Your task to perform on an android device: turn off picture-in-picture Image 0: 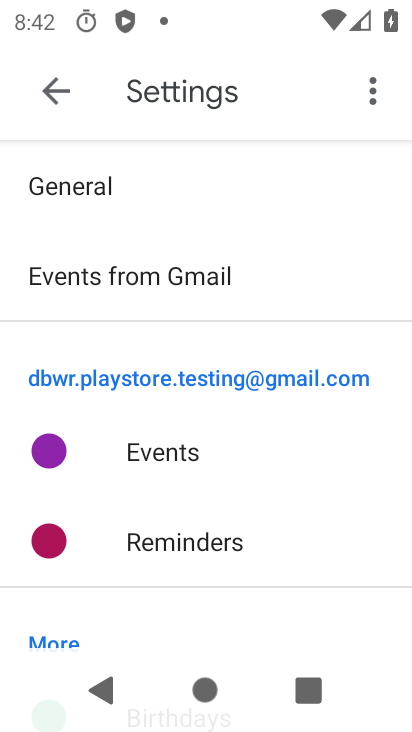
Step 0: press home button
Your task to perform on an android device: turn off picture-in-picture Image 1: 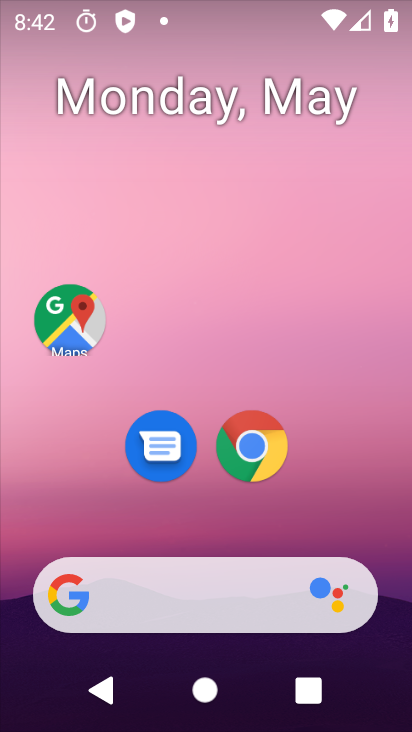
Step 1: click (248, 450)
Your task to perform on an android device: turn off picture-in-picture Image 2: 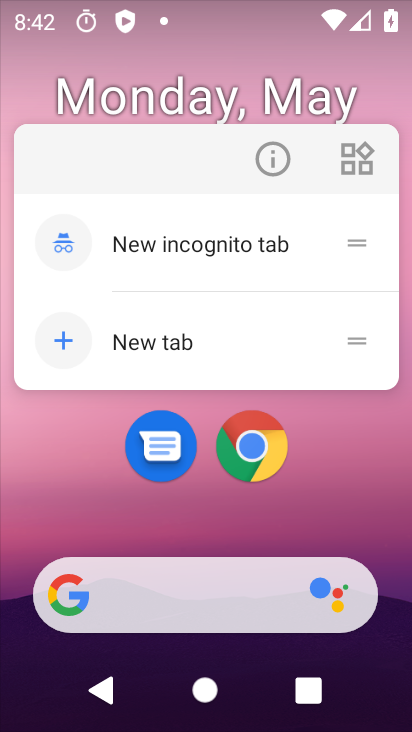
Step 2: click (275, 160)
Your task to perform on an android device: turn off picture-in-picture Image 3: 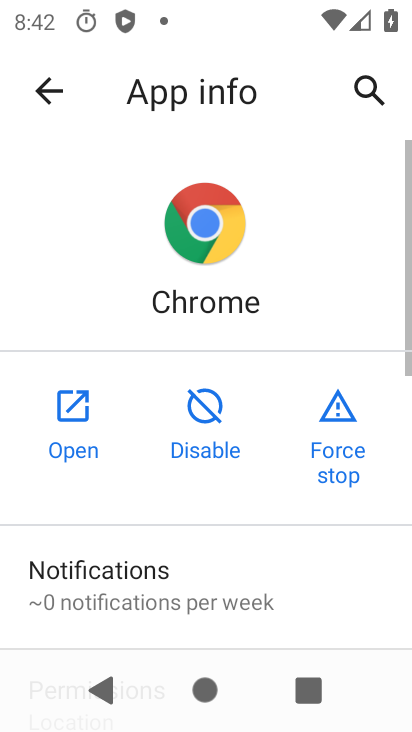
Step 3: drag from (242, 546) to (265, 31)
Your task to perform on an android device: turn off picture-in-picture Image 4: 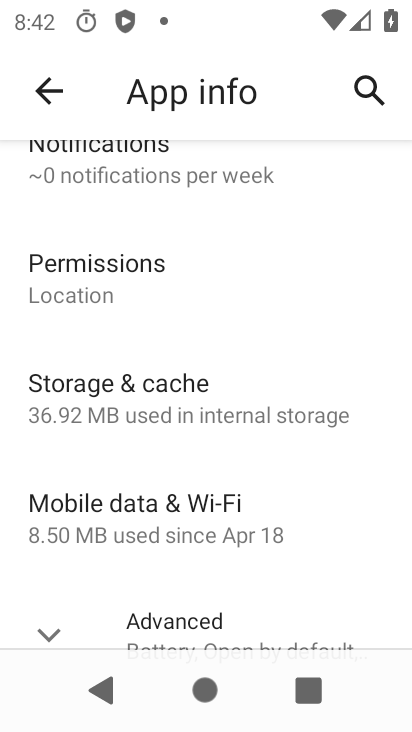
Step 4: drag from (213, 522) to (245, 146)
Your task to perform on an android device: turn off picture-in-picture Image 5: 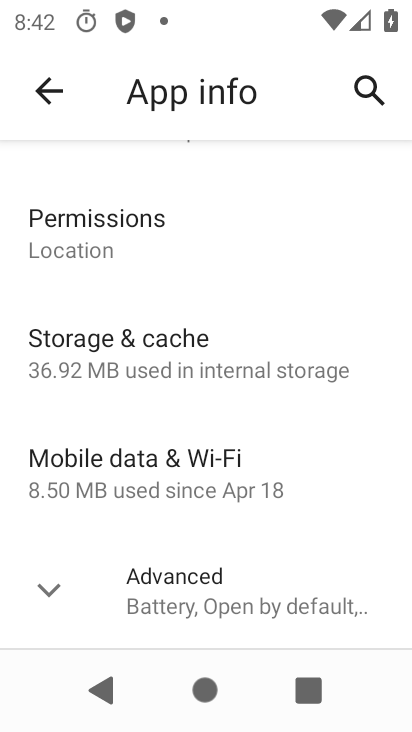
Step 5: click (50, 596)
Your task to perform on an android device: turn off picture-in-picture Image 6: 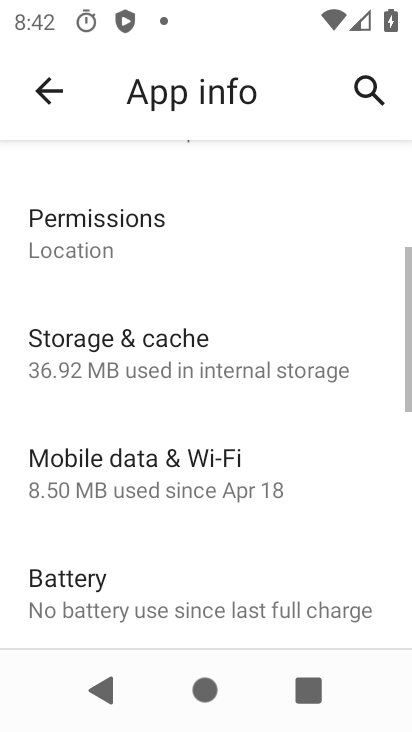
Step 6: drag from (218, 585) to (228, 188)
Your task to perform on an android device: turn off picture-in-picture Image 7: 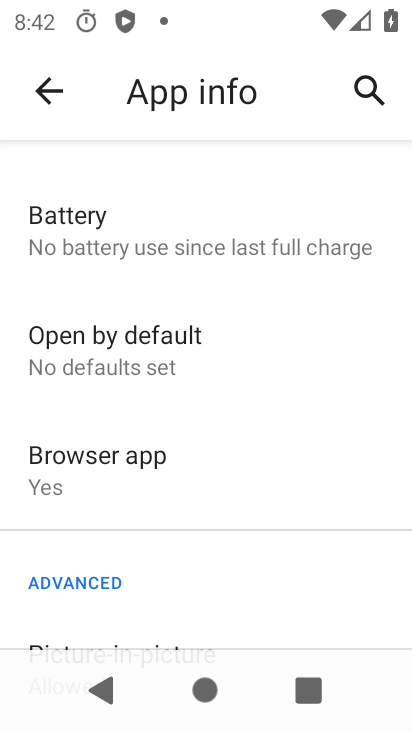
Step 7: drag from (176, 502) to (187, 117)
Your task to perform on an android device: turn off picture-in-picture Image 8: 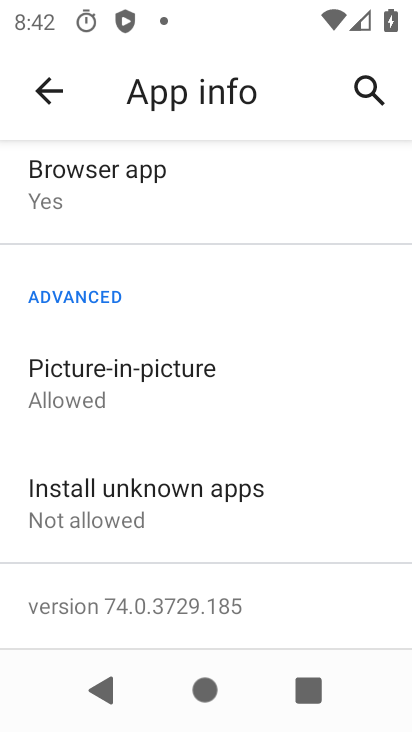
Step 8: click (93, 388)
Your task to perform on an android device: turn off picture-in-picture Image 9: 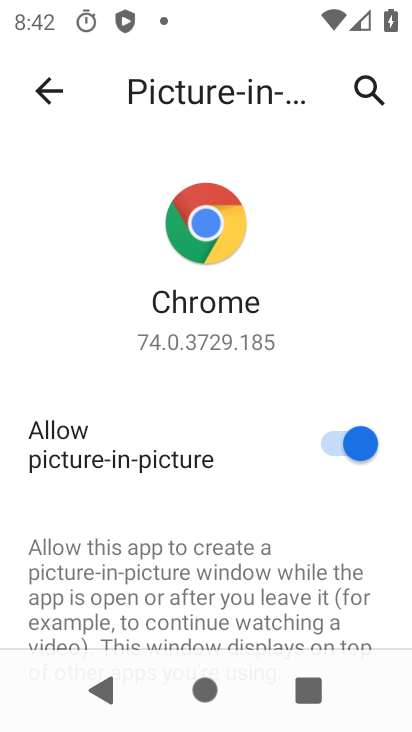
Step 9: click (358, 450)
Your task to perform on an android device: turn off picture-in-picture Image 10: 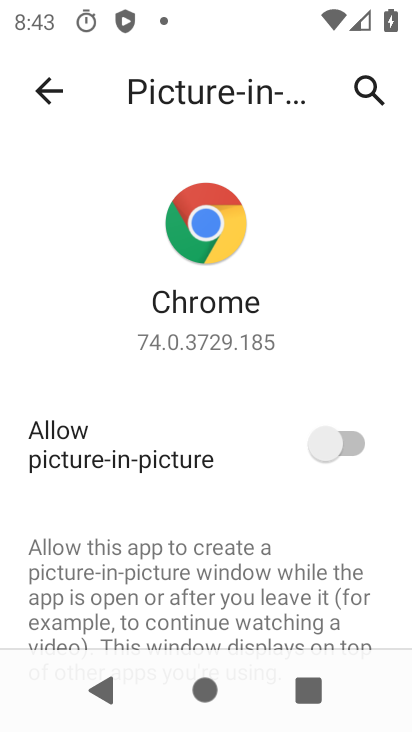
Step 10: task complete